Your task to perform on an android device: turn off location history Image 0: 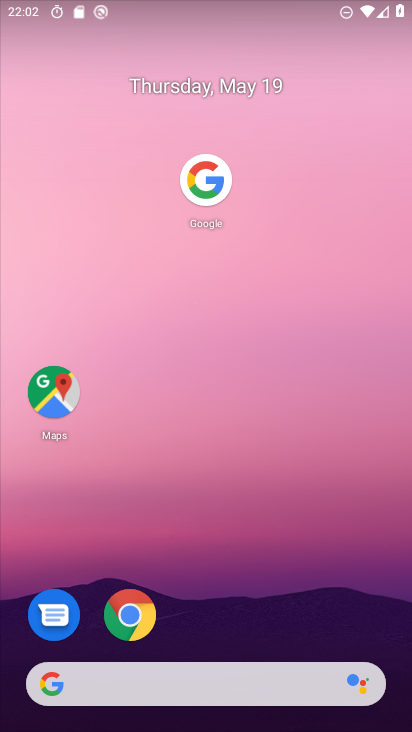
Step 0: drag from (252, 603) to (337, 84)
Your task to perform on an android device: turn off location history Image 1: 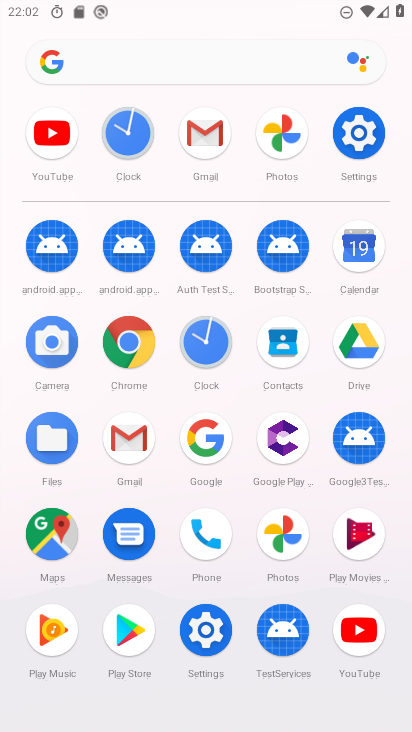
Step 1: click (376, 127)
Your task to perform on an android device: turn off location history Image 2: 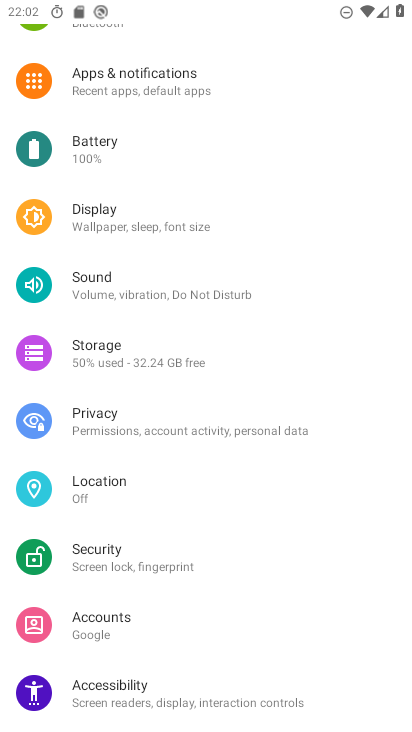
Step 2: click (121, 477)
Your task to perform on an android device: turn off location history Image 3: 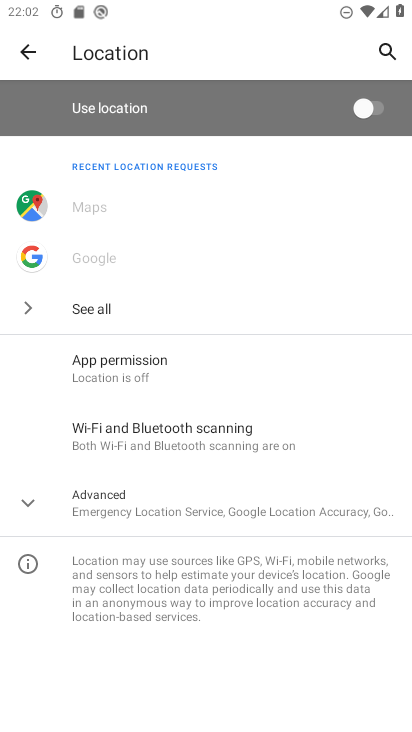
Step 3: click (141, 492)
Your task to perform on an android device: turn off location history Image 4: 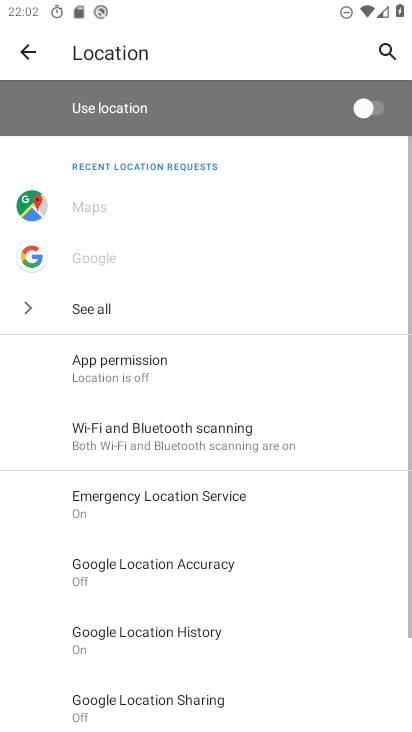
Step 4: drag from (225, 543) to (268, 329)
Your task to perform on an android device: turn off location history Image 5: 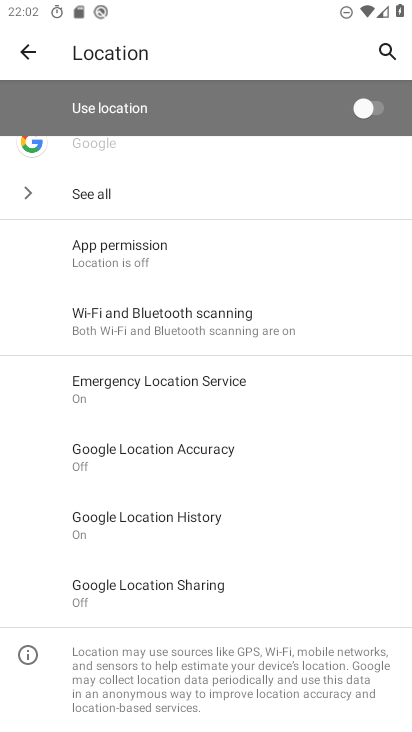
Step 5: click (150, 515)
Your task to perform on an android device: turn off location history Image 6: 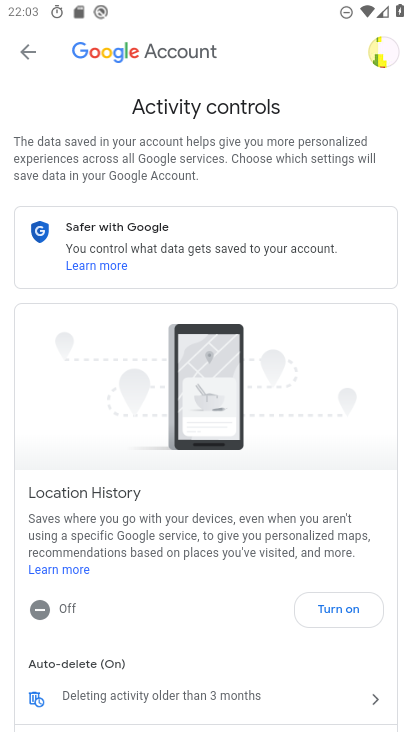
Step 6: task complete